Your task to perform on an android device: Clear the cart on amazon. Search for alienware aurora on amazon, select the first entry, add it to the cart, then select checkout. Image 0: 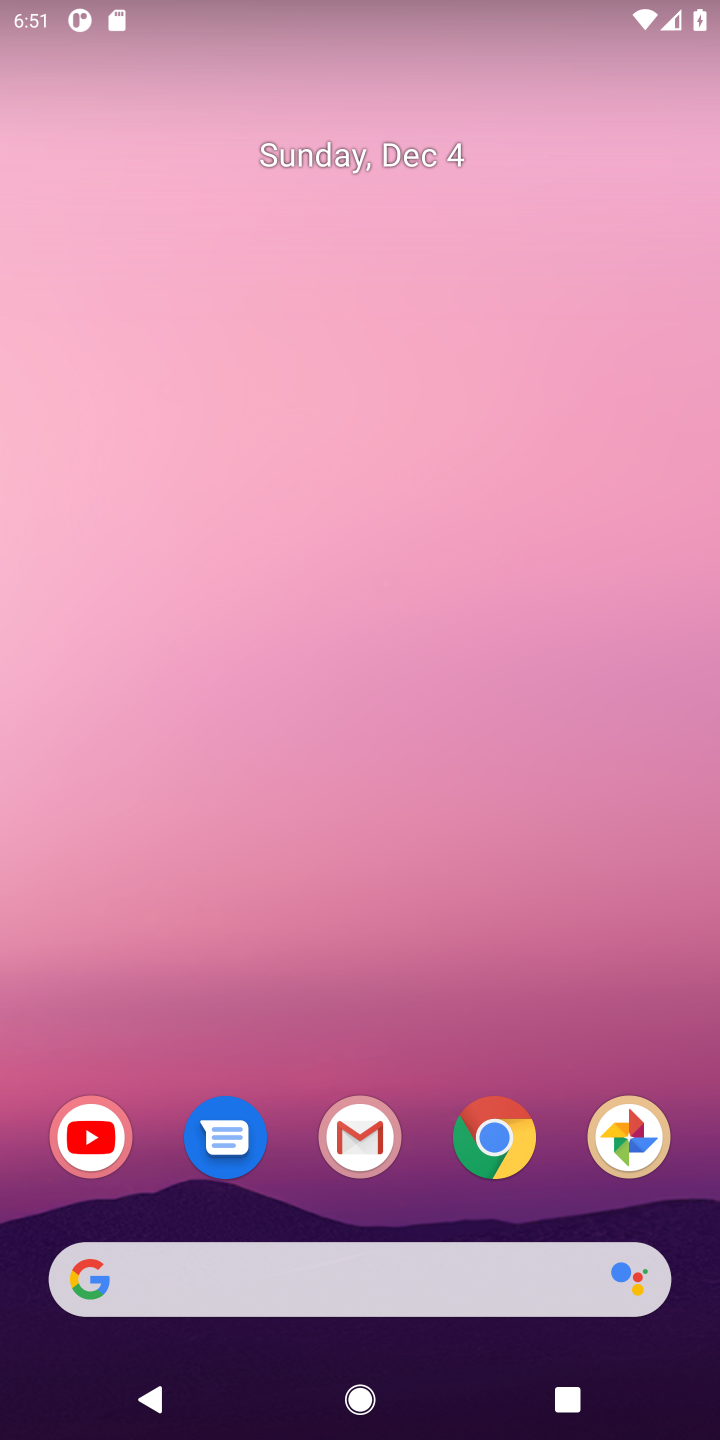
Step 0: click (491, 1139)
Your task to perform on an android device: Clear the cart on amazon. Search for alienware aurora on amazon, select the first entry, add it to the cart, then select checkout. Image 1: 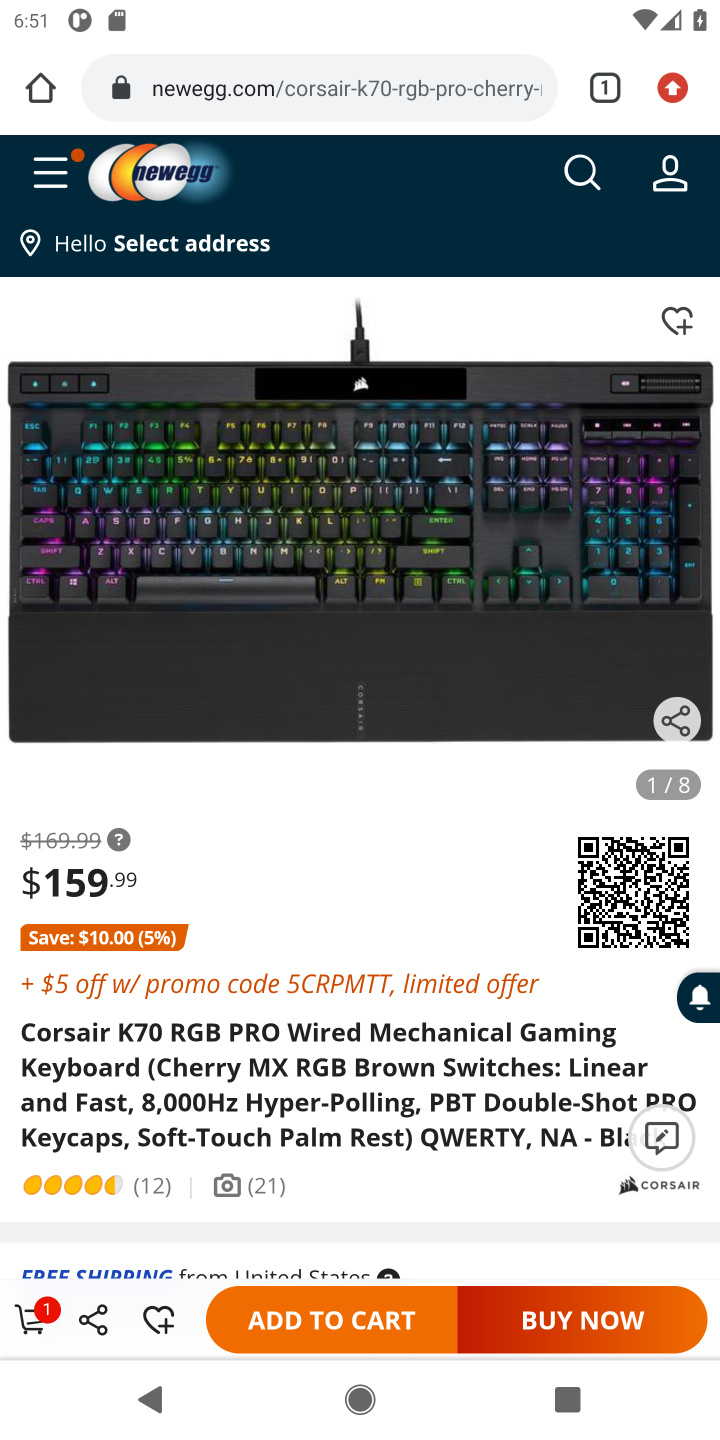
Step 1: click (354, 57)
Your task to perform on an android device: Clear the cart on amazon. Search for alienware aurora on amazon, select the first entry, add it to the cart, then select checkout. Image 2: 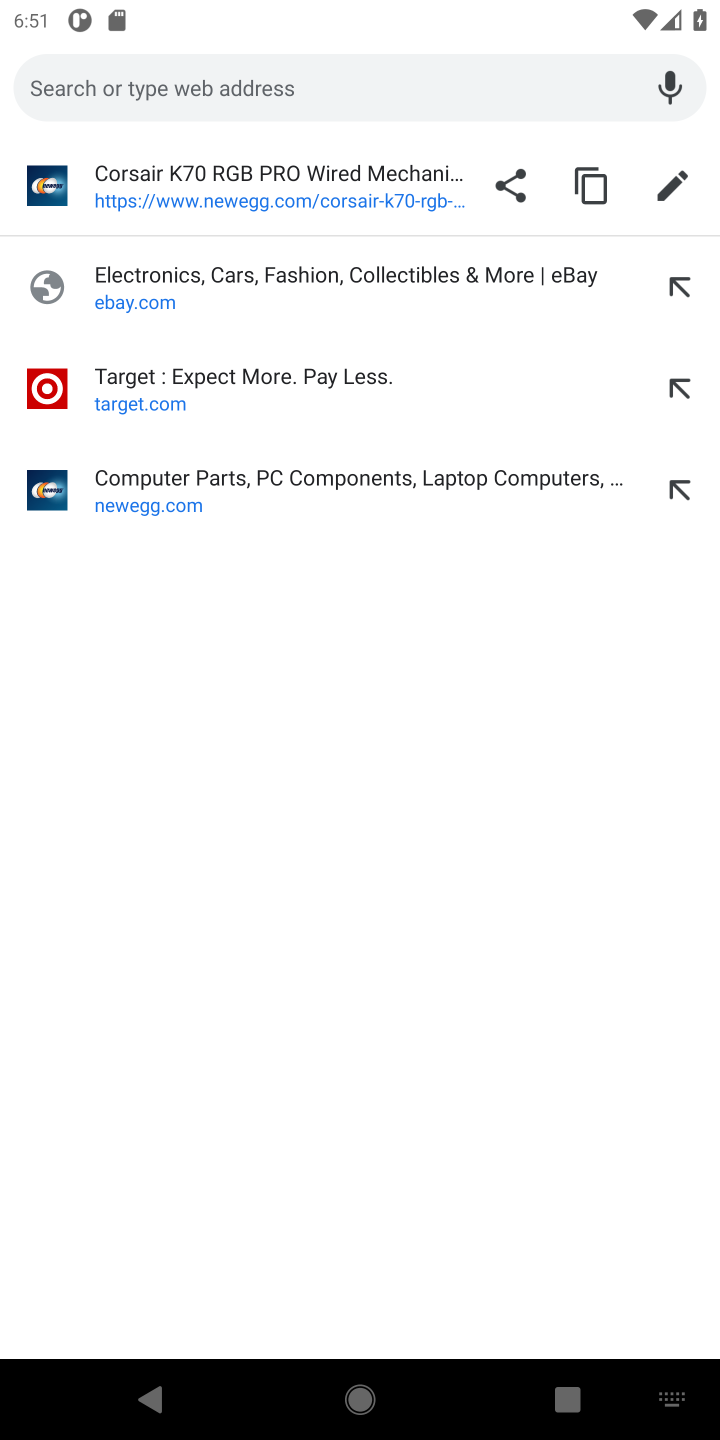
Step 2: type "amazon"
Your task to perform on an android device: Clear the cart on amazon. Search for alienware aurora on amazon, select the first entry, add it to the cart, then select checkout. Image 3: 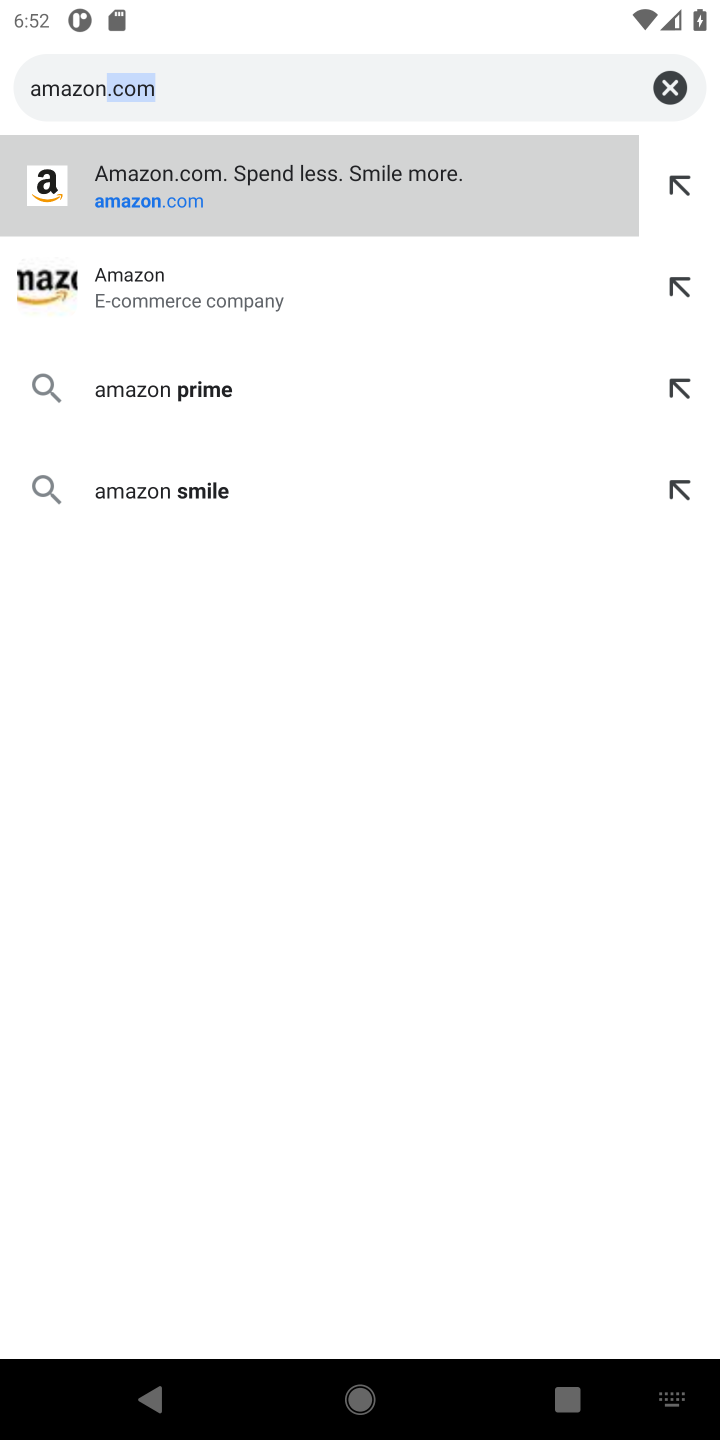
Step 3: click (138, 177)
Your task to perform on an android device: Clear the cart on amazon. Search for alienware aurora on amazon, select the first entry, add it to the cart, then select checkout. Image 4: 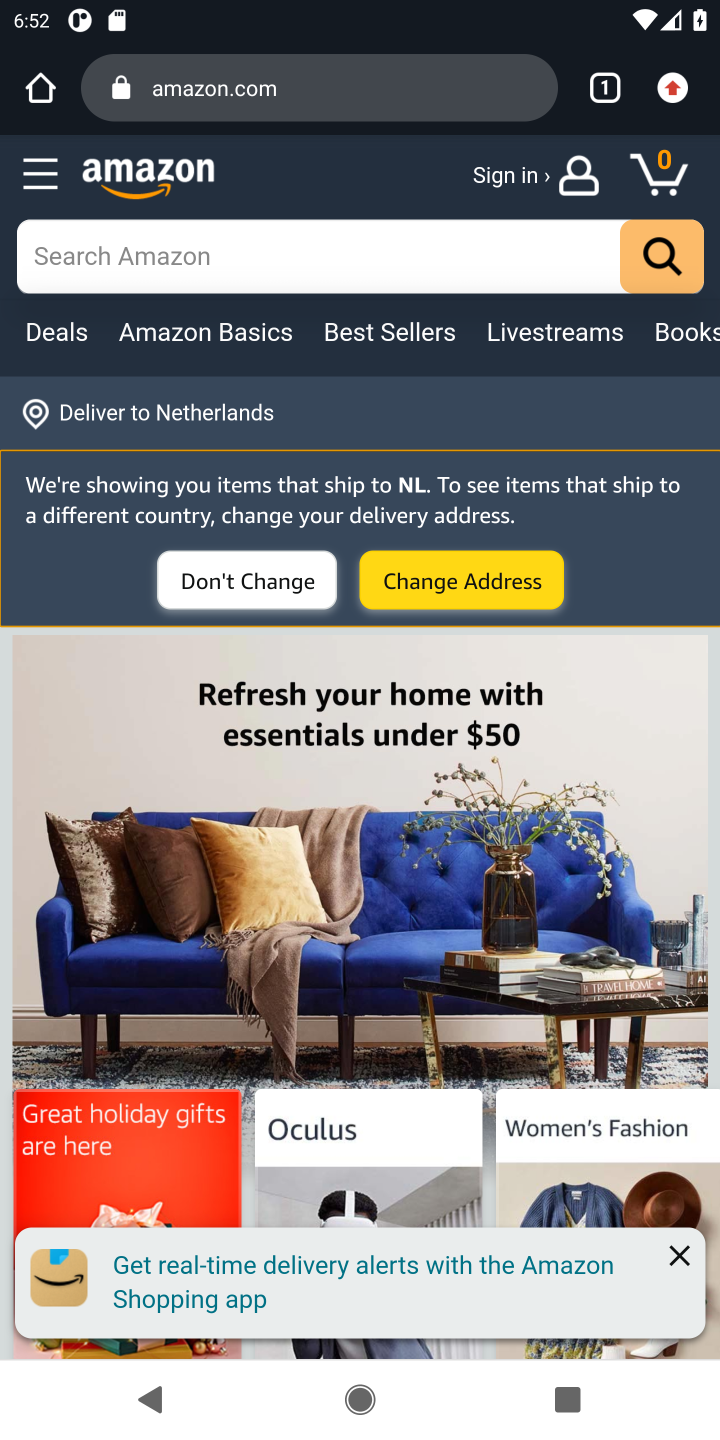
Step 4: click (652, 174)
Your task to perform on an android device: Clear the cart on amazon. Search for alienware aurora on amazon, select the first entry, add it to the cart, then select checkout. Image 5: 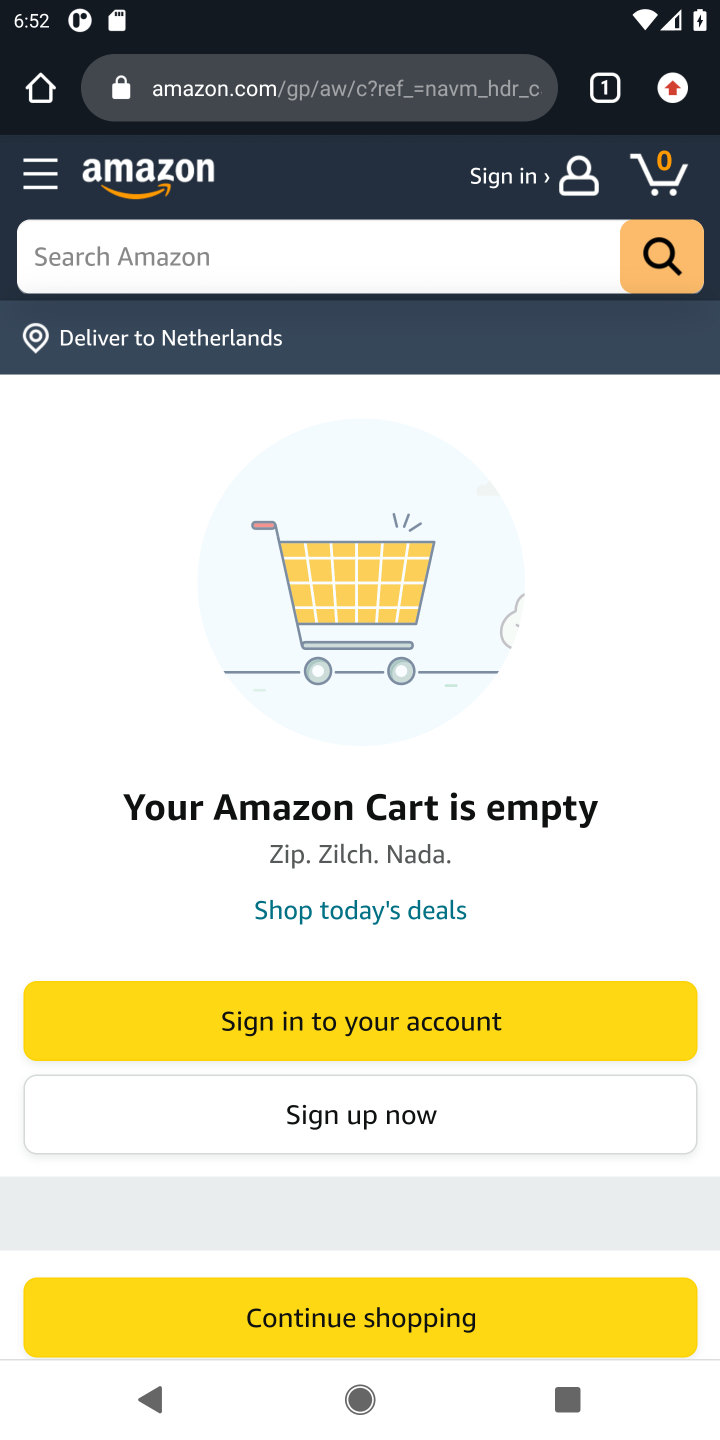
Step 5: click (146, 243)
Your task to perform on an android device: Clear the cart on amazon. Search for alienware aurora on amazon, select the first entry, add it to the cart, then select checkout. Image 6: 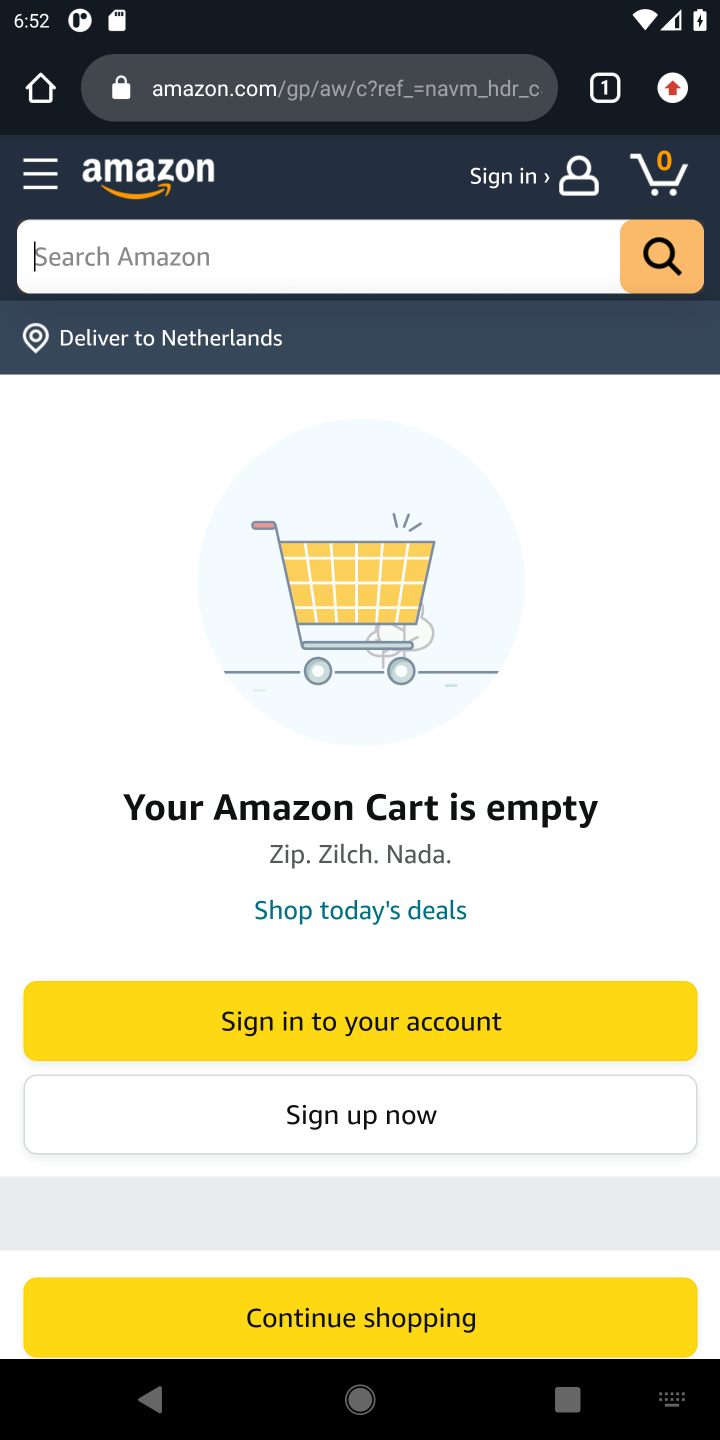
Step 6: type "alienware aurora"
Your task to perform on an android device: Clear the cart on amazon. Search for alienware aurora on amazon, select the first entry, add it to the cart, then select checkout. Image 7: 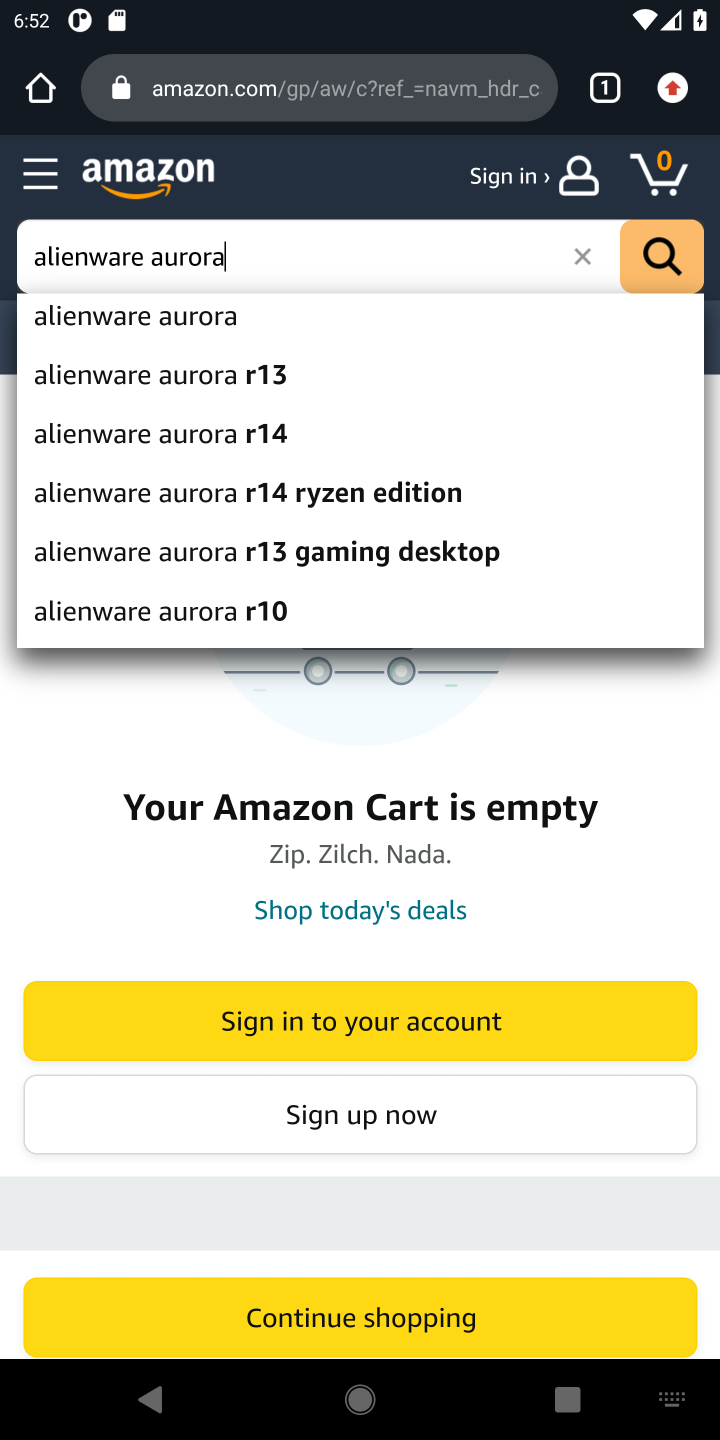
Step 7: click (136, 309)
Your task to perform on an android device: Clear the cart on amazon. Search for alienware aurora on amazon, select the first entry, add it to the cart, then select checkout. Image 8: 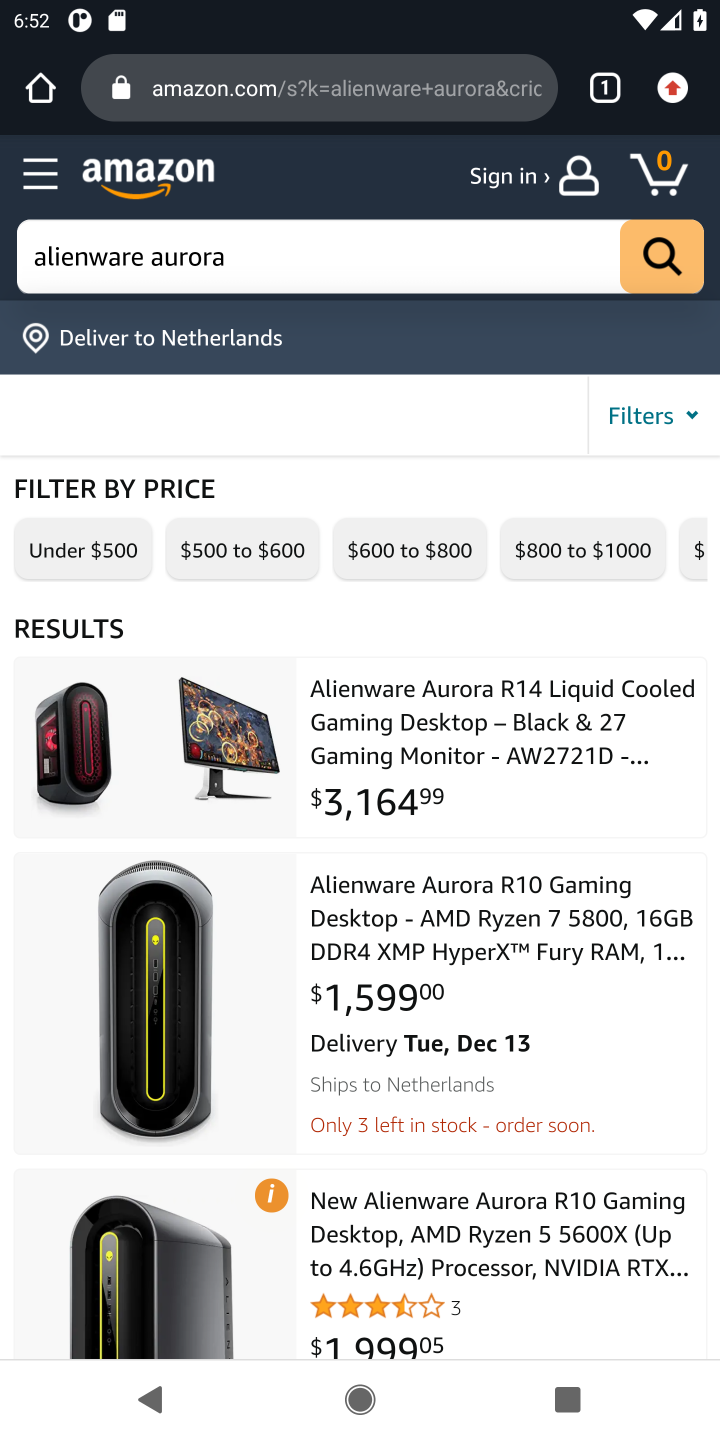
Step 8: click (400, 721)
Your task to perform on an android device: Clear the cart on amazon. Search for alienware aurora on amazon, select the first entry, add it to the cart, then select checkout. Image 9: 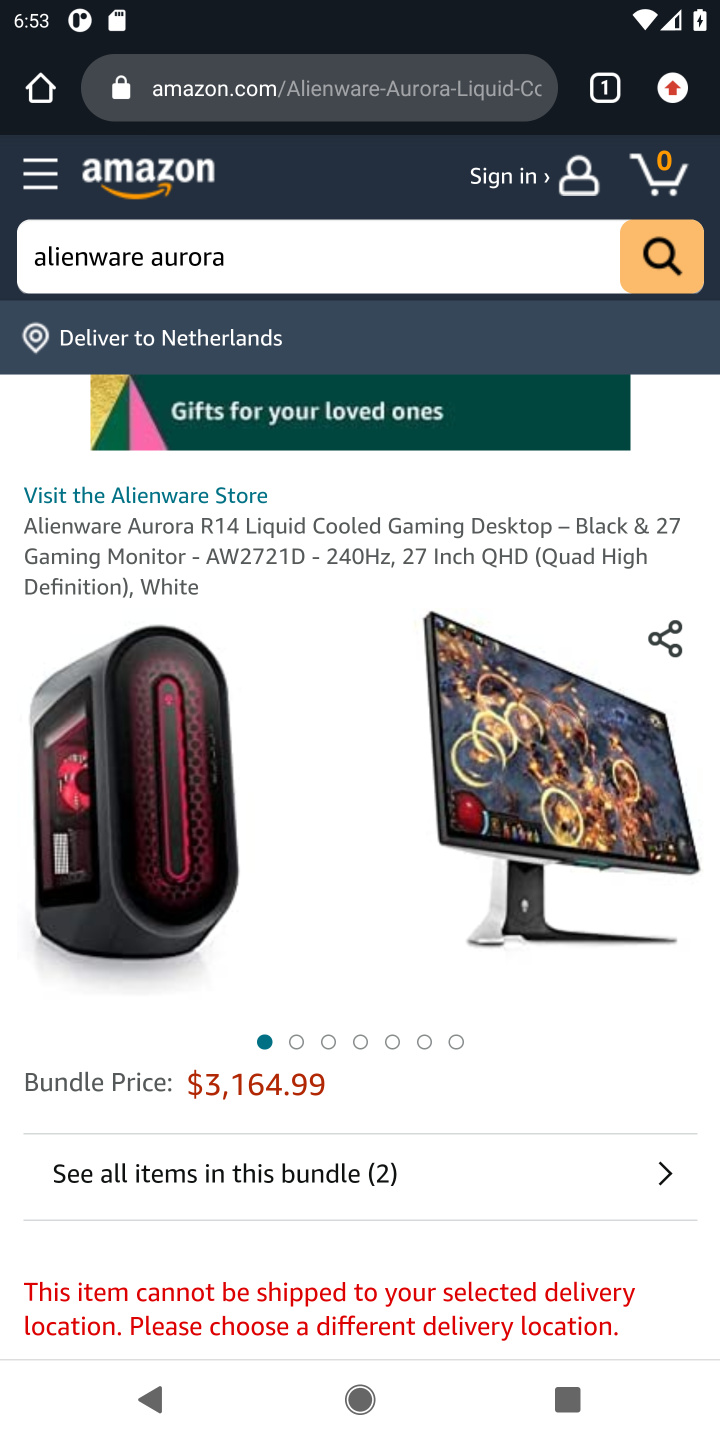
Step 9: drag from (423, 1153) to (394, 437)
Your task to perform on an android device: Clear the cart on amazon. Search for alienware aurora on amazon, select the first entry, add it to the cart, then select checkout. Image 10: 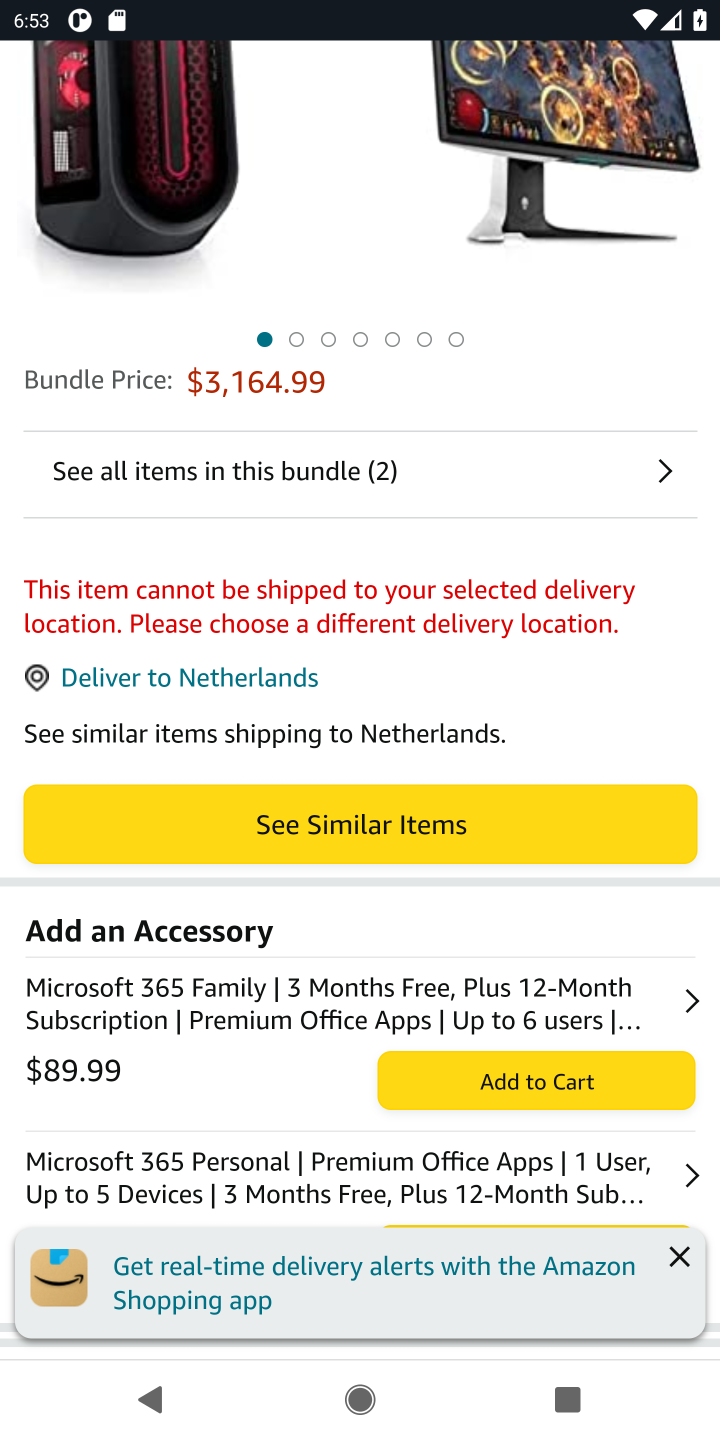
Step 10: drag from (237, 1121) to (280, 469)
Your task to perform on an android device: Clear the cart on amazon. Search for alienware aurora on amazon, select the first entry, add it to the cart, then select checkout. Image 11: 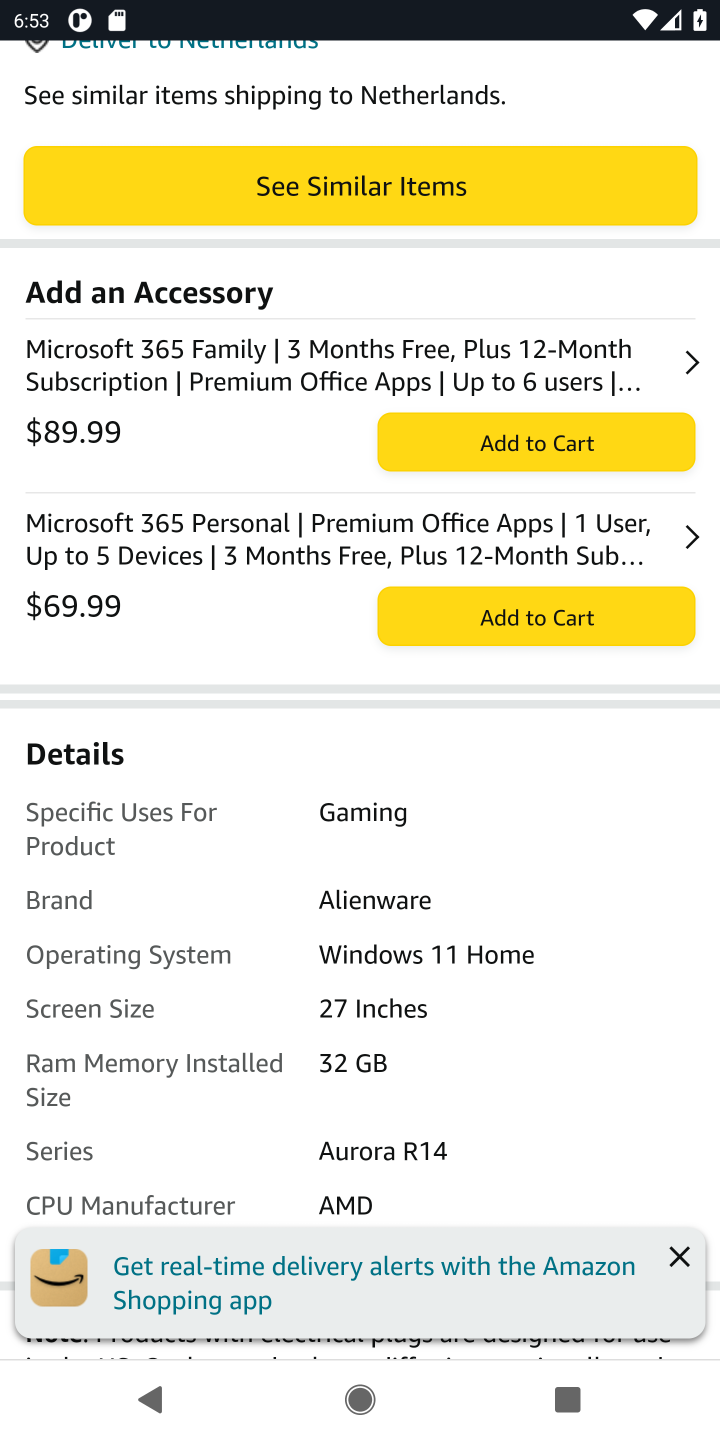
Step 11: drag from (223, 824) to (263, 177)
Your task to perform on an android device: Clear the cart on amazon. Search for alienware aurora on amazon, select the first entry, add it to the cart, then select checkout. Image 12: 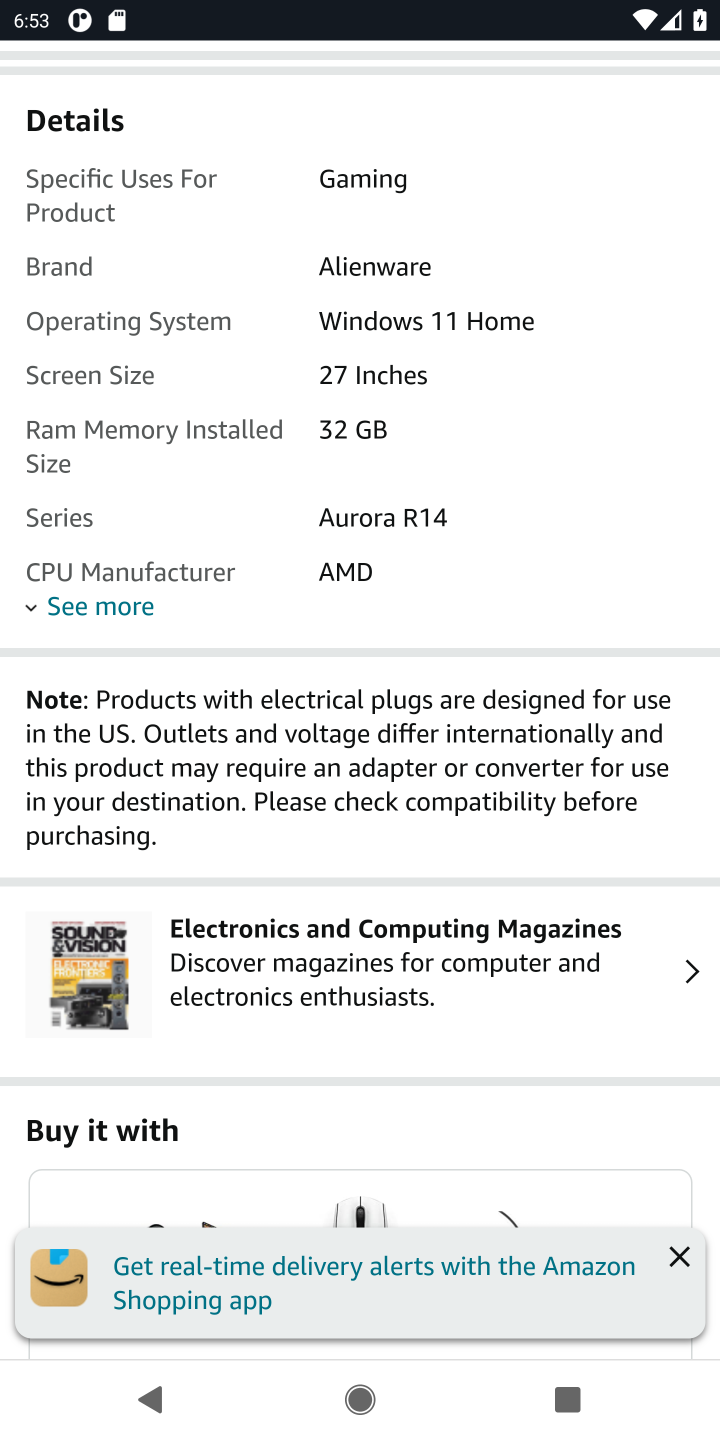
Step 12: drag from (268, 1075) to (272, 178)
Your task to perform on an android device: Clear the cart on amazon. Search for alienware aurora on amazon, select the first entry, add it to the cart, then select checkout. Image 13: 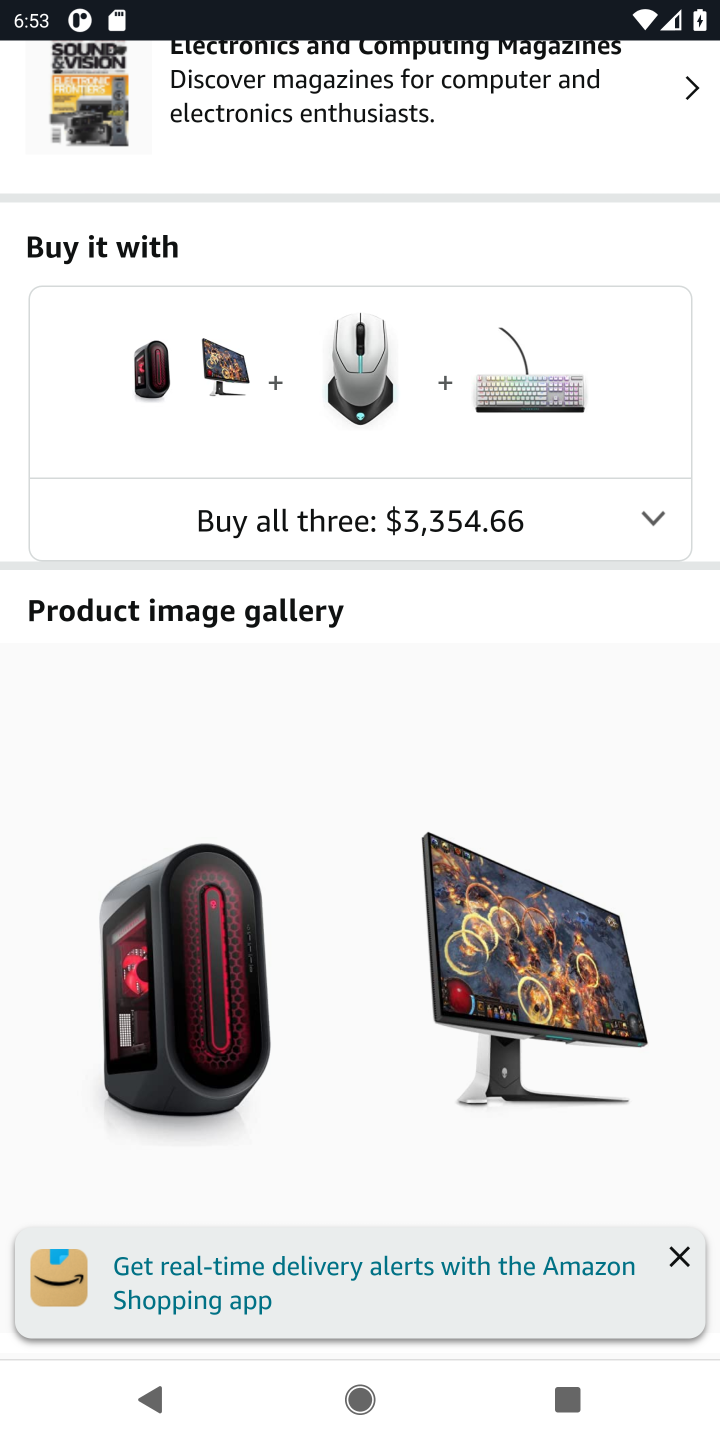
Step 13: drag from (318, 927) to (356, 1048)
Your task to perform on an android device: Clear the cart on amazon. Search for alienware aurora on amazon, select the first entry, add it to the cart, then select checkout. Image 14: 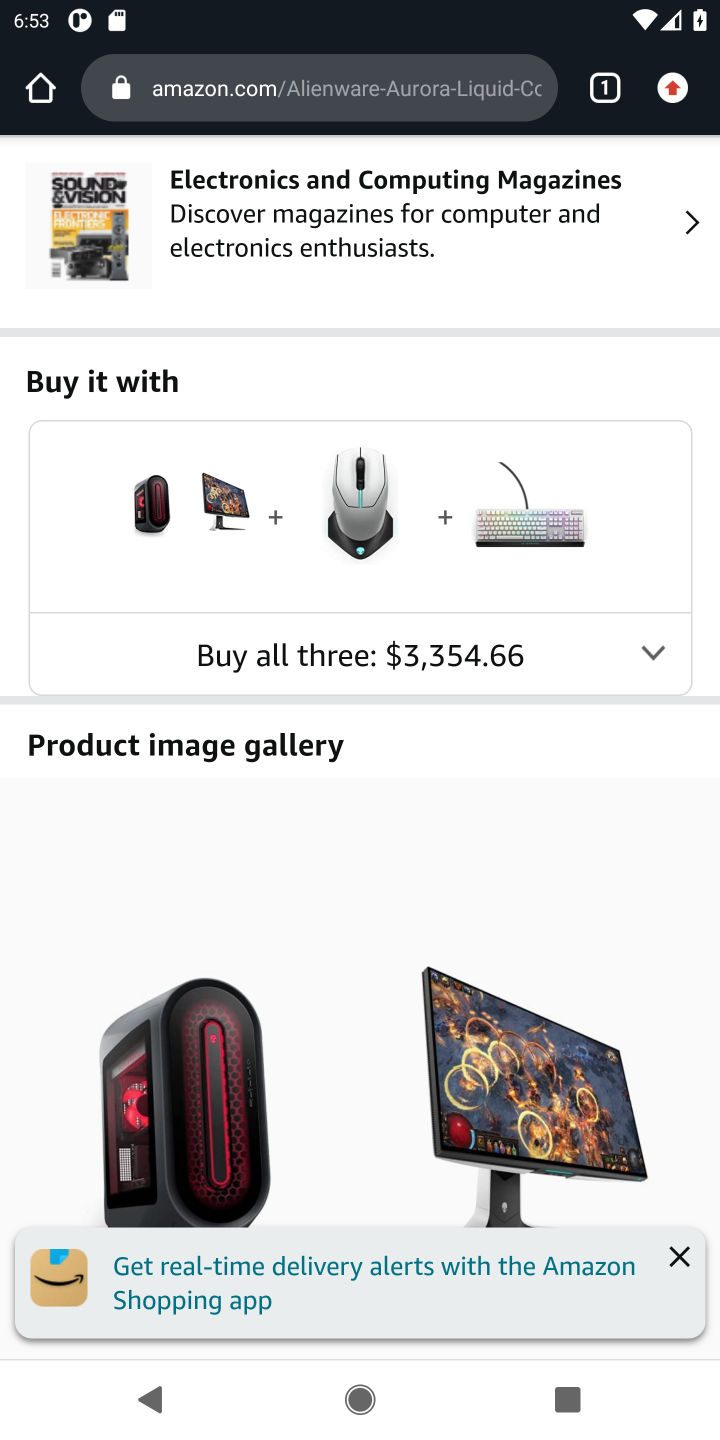
Step 14: drag from (388, 274) to (328, 1053)
Your task to perform on an android device: Clear the cart on amazon. Search for alienware aurora on amazon, select the first entry, add it to the cart, then select checkout. Image 15: 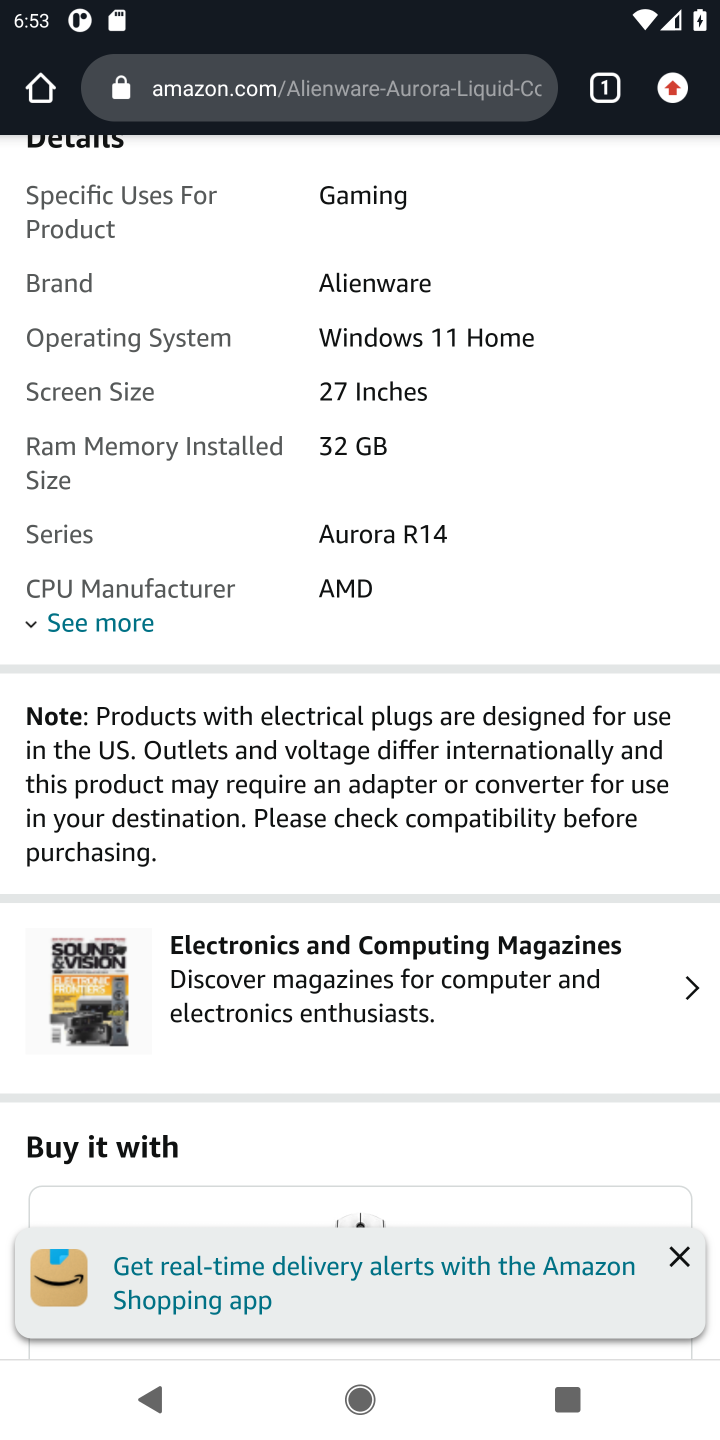
Step 15: drag from (463, 256) to (469, 1178)
Your task to perform on an android device: Clear the cart on amazon. Search for alienware aurora on amazon, select the first entry, add it to the cart, then select checkout. Image 16: 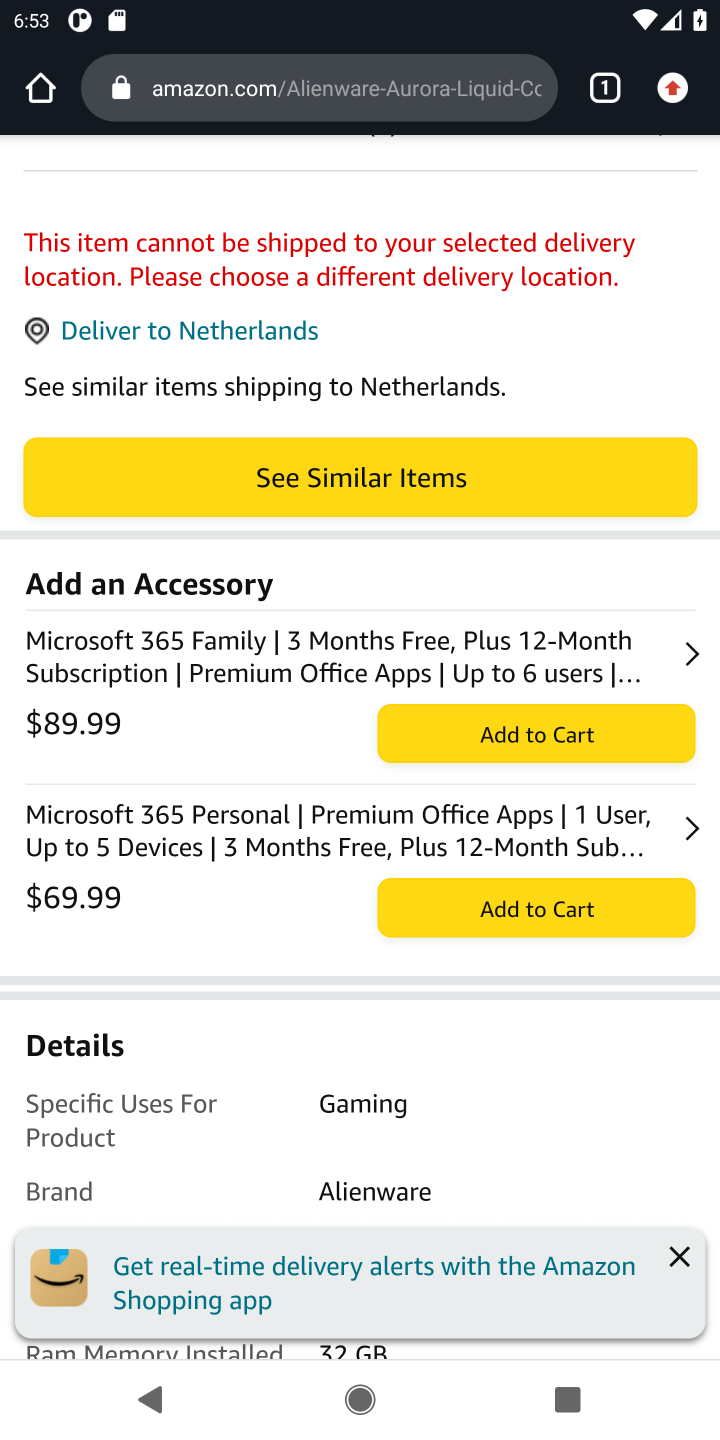
Step 16: drag from (404, 352) to (308, 880)
Your task to perform on an android device: Clear the cart on amazon. Search for alienware aurora on amazon, select the first entry, add it to the cart, then select checkout. Image 17: 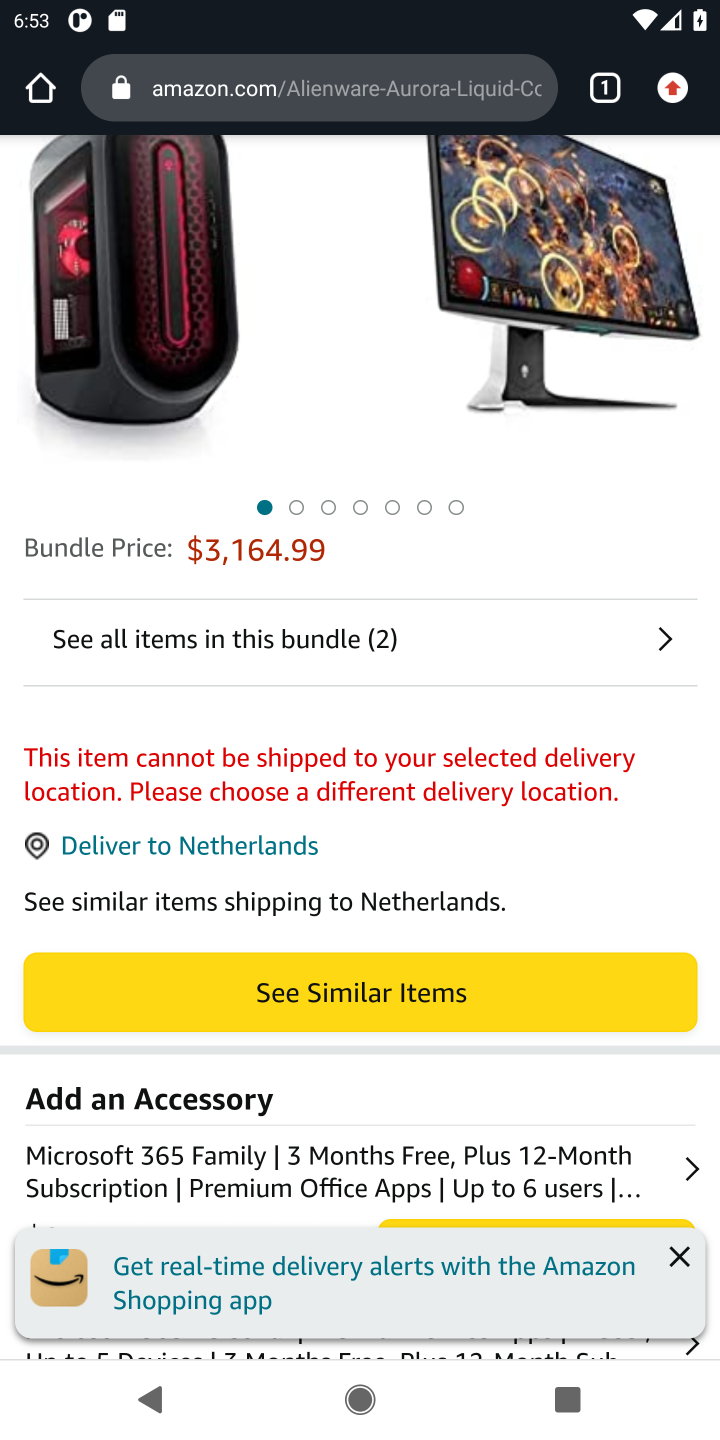
Step 17: drag from (448, 270) to (340, 811)
Your task to perform on an android device: Clear the cart on amazon. Search for alienware aurora on amazon, select the first entry, add it to the cart, then select checkout. Image 18: 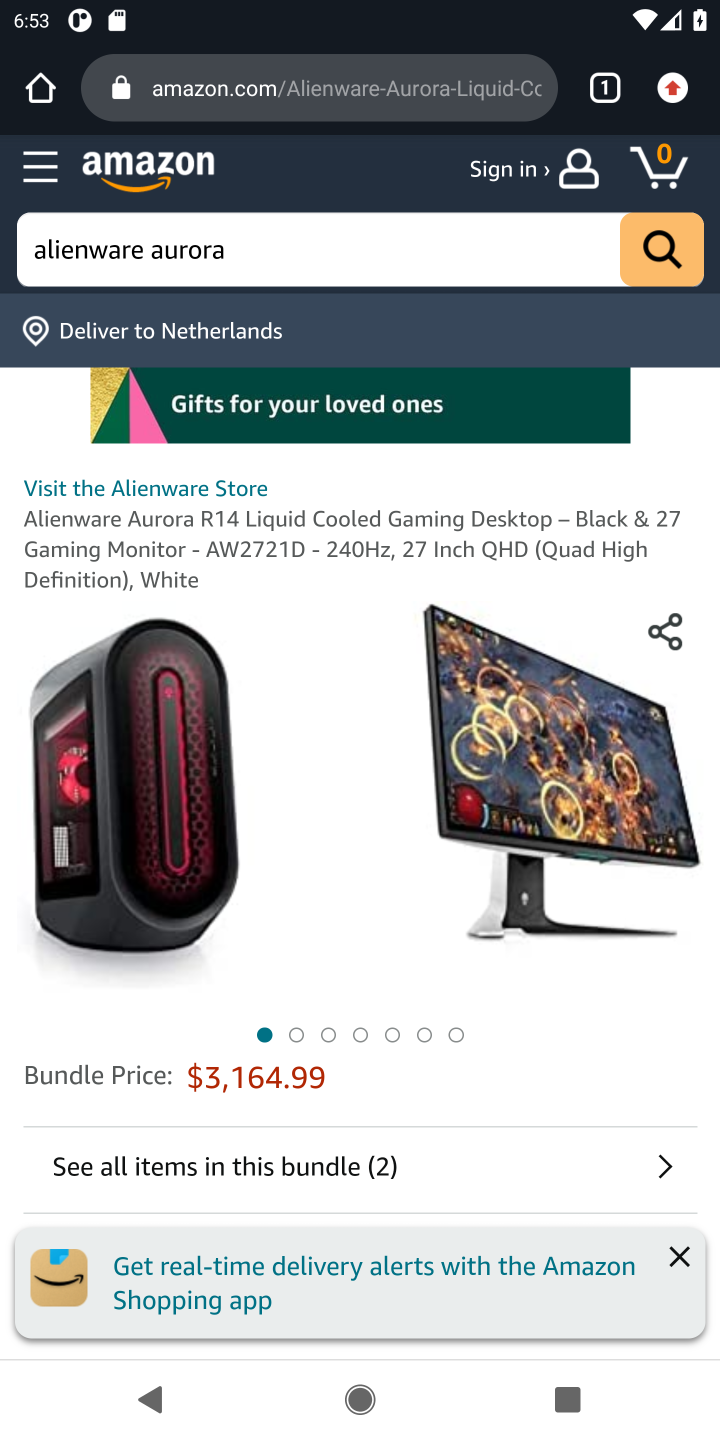
Step 18: press back button
Your task to perform on an android device: Clear the cart on amazon. Search for alienware aurora on amazon, select the first entry, add it to the cart, then select checkout. Image 19: 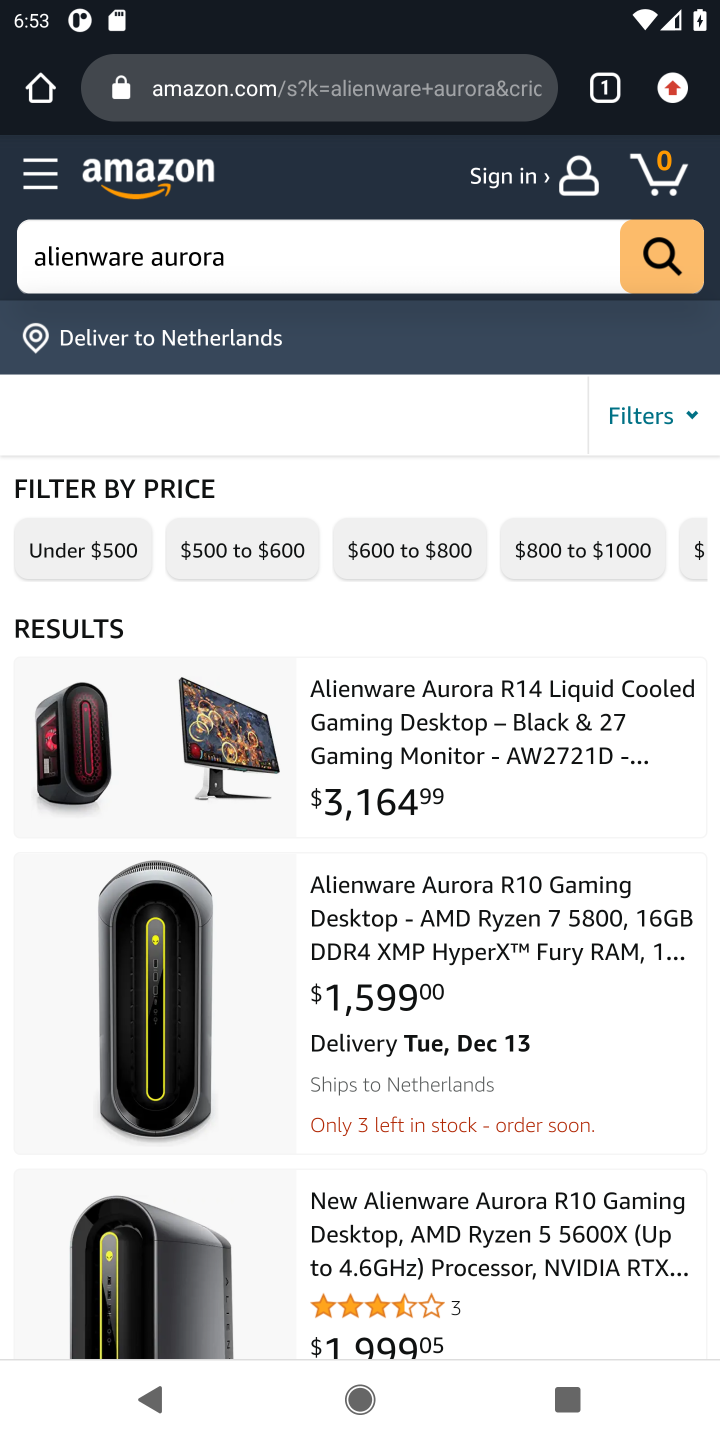
Step 19: click (317, 909)
Your task to perform on an android device: Clear the cart on amazon. Search for alienware aurora on amazon, select the first entry, add it to the cart, then select checkout. Image 20: 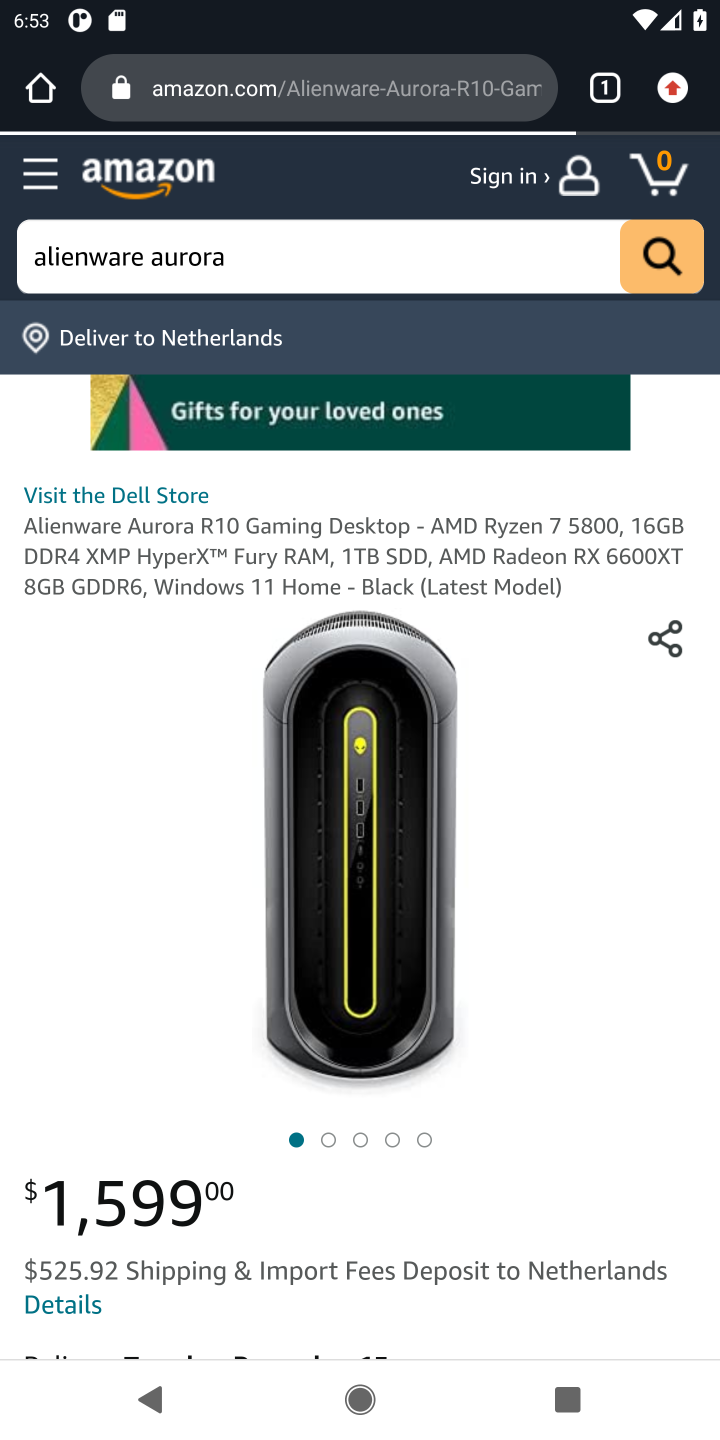
Step 20: drag from (504, 1109) to (445, 391)
Your task to perform on an android device: Clear the cart on amazon. Search for alienware aurora on amazon, select the first entry, add it to the cart, then select checkout. Image 21: 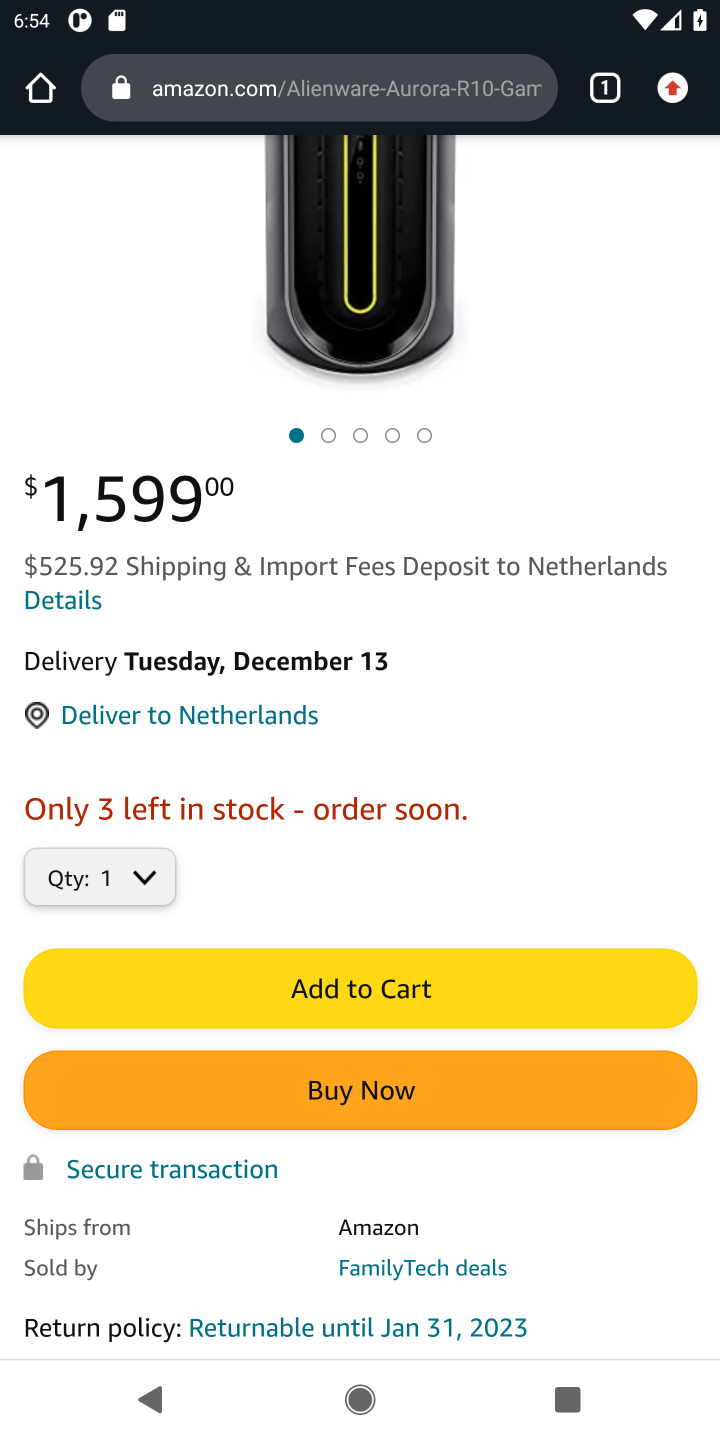
Step 21: click (360, 986)
Your task to perform on an android device: Clear the cart on amazon. Search for alienware aurora on amazon, select the first entry, add it to the cart, then select checkout. Image 22: 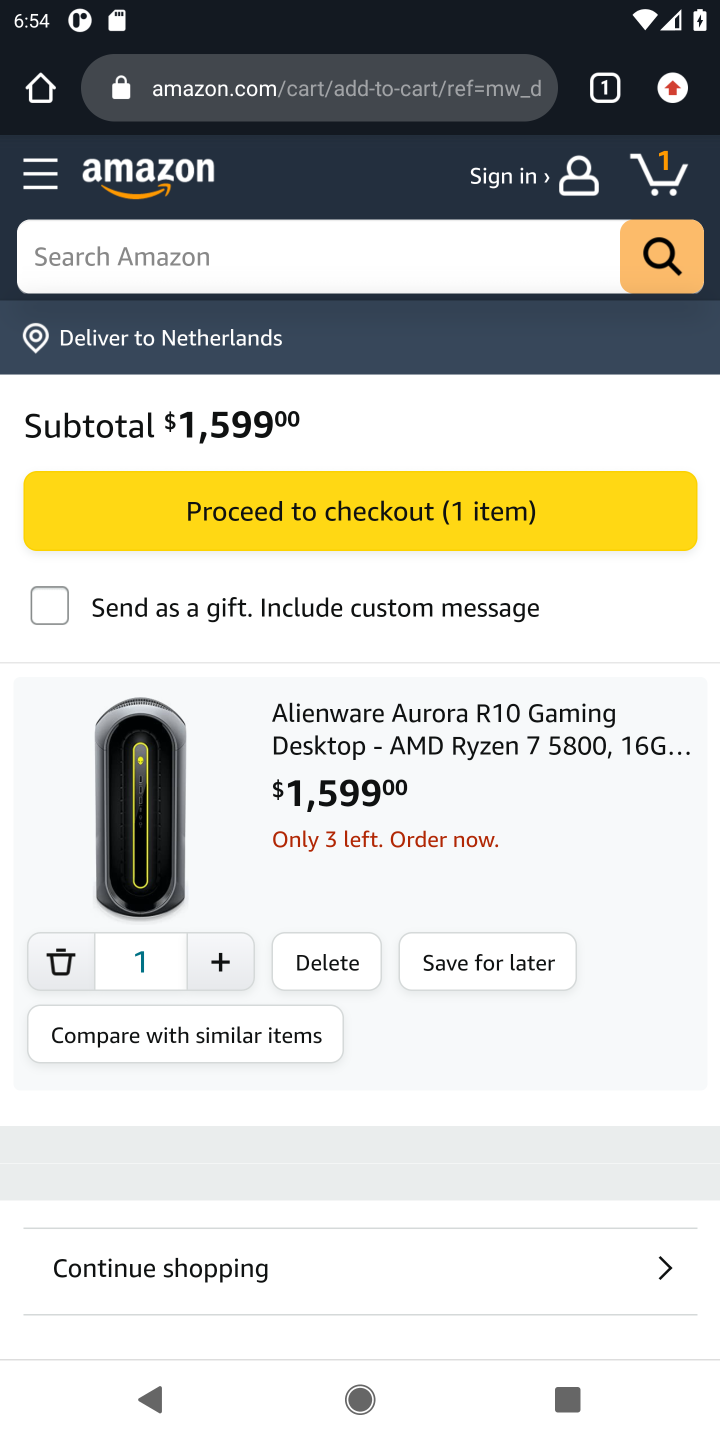
Step 22: click (369, 498)
Your task to perform on an android device: Clear the cart on amazon. Search for alienware aurora on amazon, select the first entry, add it to the cart, then select checkout. Image 23: 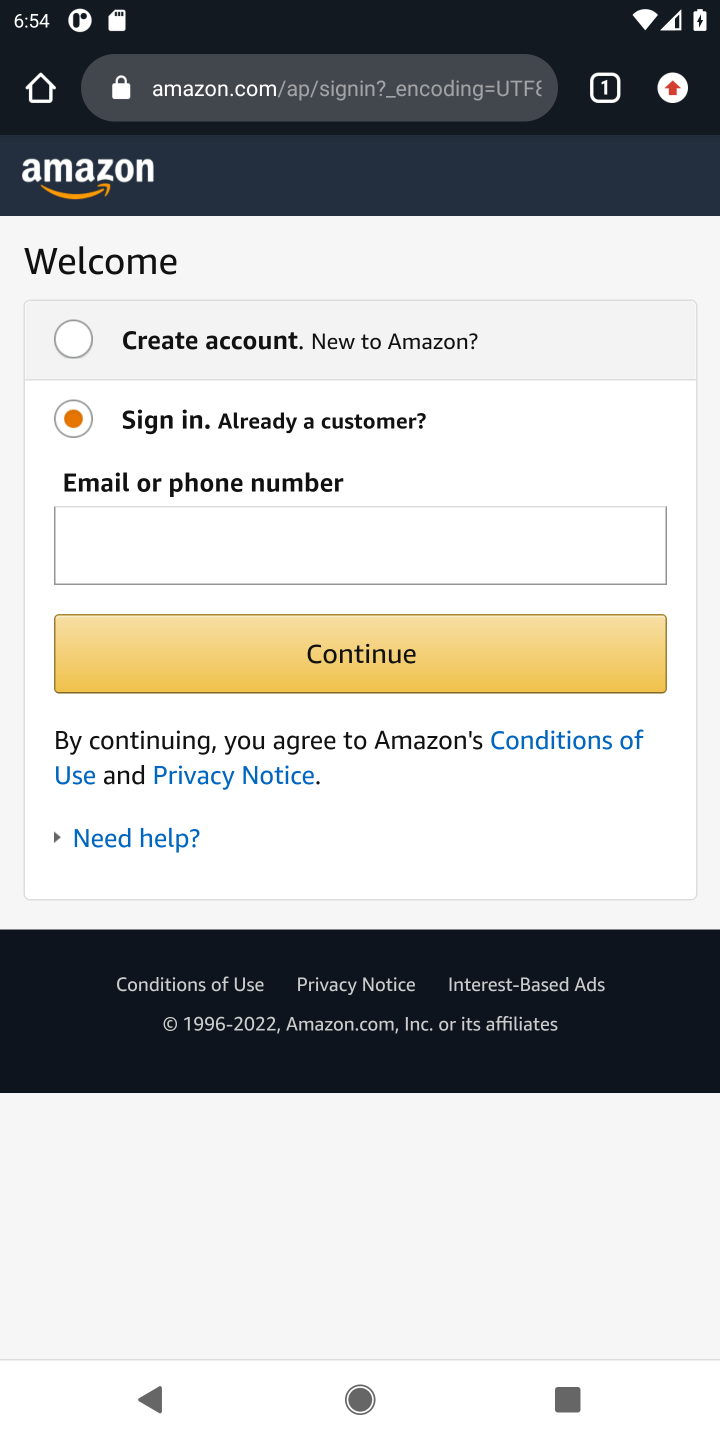
Step 23: task complete